Your task to perform on an android device: empty trash in google photos Image 0: 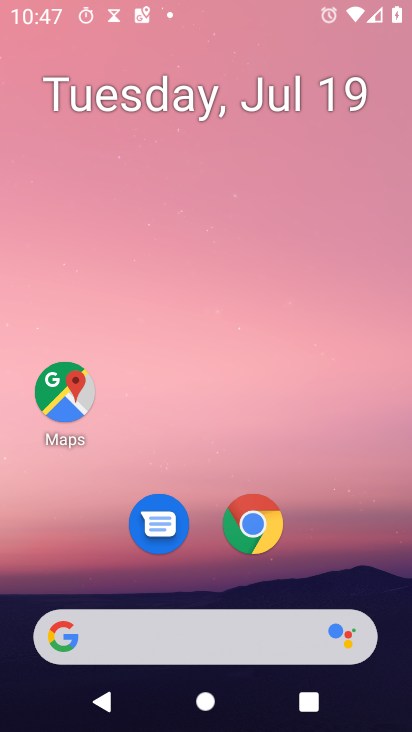
Step 0: press home button
Your task to perform on an android device: empty trash in google photos Image 1: 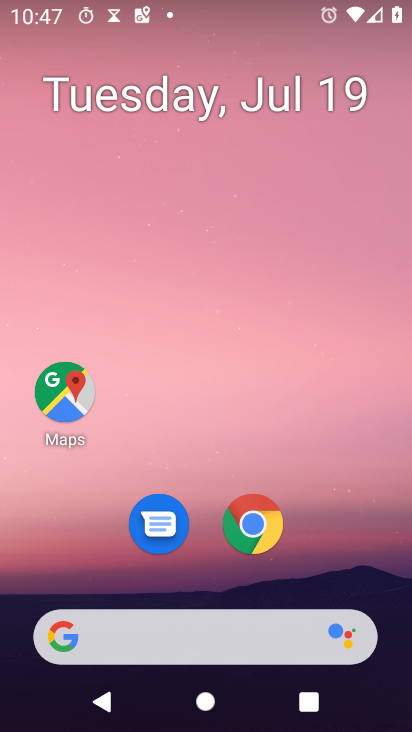
Step 1: drag from (202, 633) to (279, 92)
Your task to perform on an android device: empty trash in google photos Image 2: 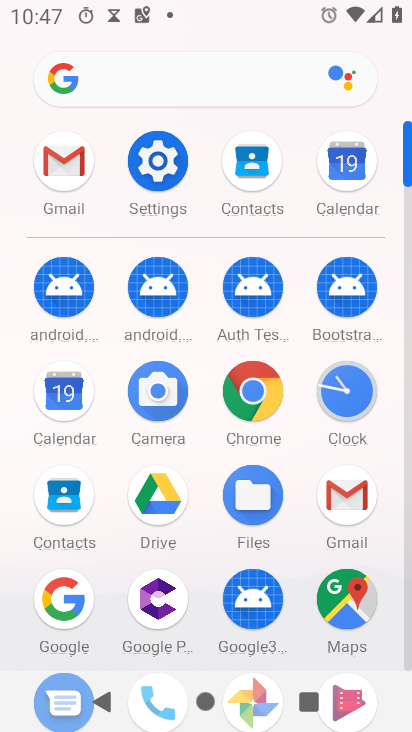
Step 2: drag from (215, 587) to (319, 184)
Your task to perform on an android device: empty trash in google photos Image 3: 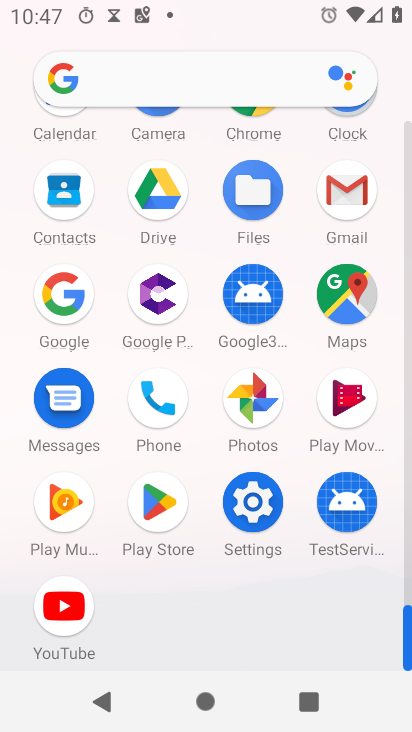
Step 3: click (263, 405)
Your task to perform on an android device: empty trash in google photos Image 4: 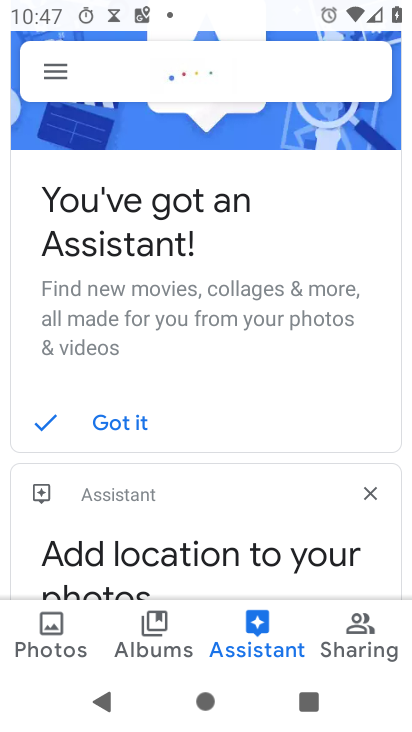
Step 4: click (50, 71)
Your task to perform on an android device: empty trash in google photos Image 5: 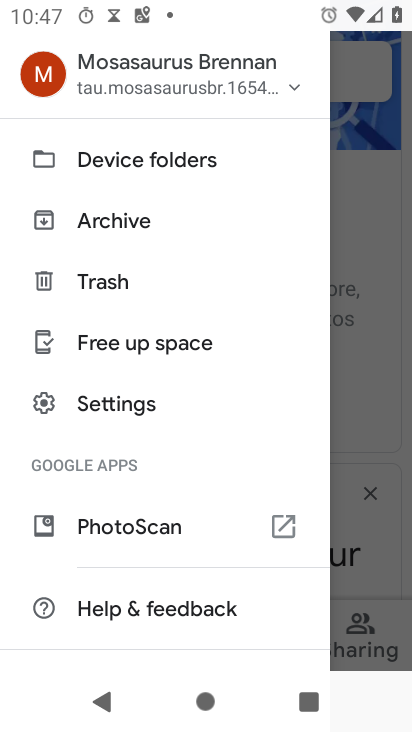
Step 5: click (127, 281)
Your task to perform on an android device: empty trash in google photos Image 6: 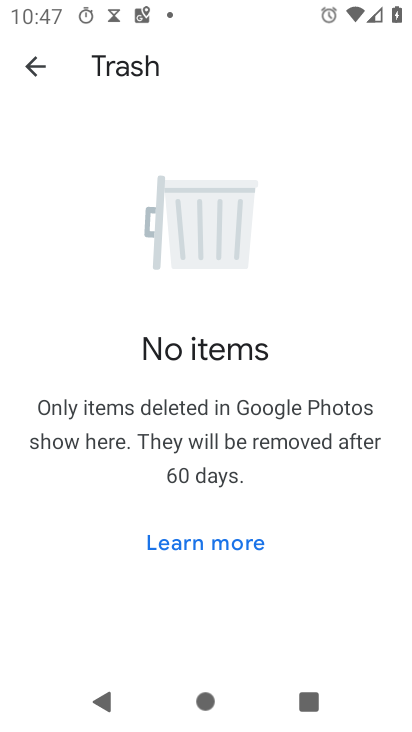
Step 6: task complete